Your task to perform on an android device: change the clock display to digital Image 0: 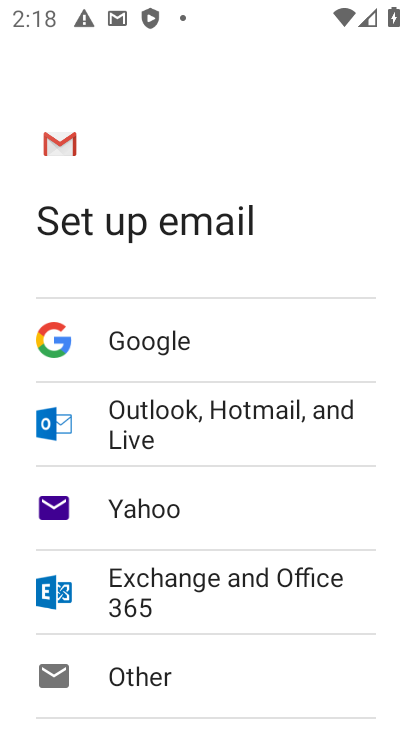
Step 0: press home button
Your task to perform on an android device: change the clock display to digital Image 1: 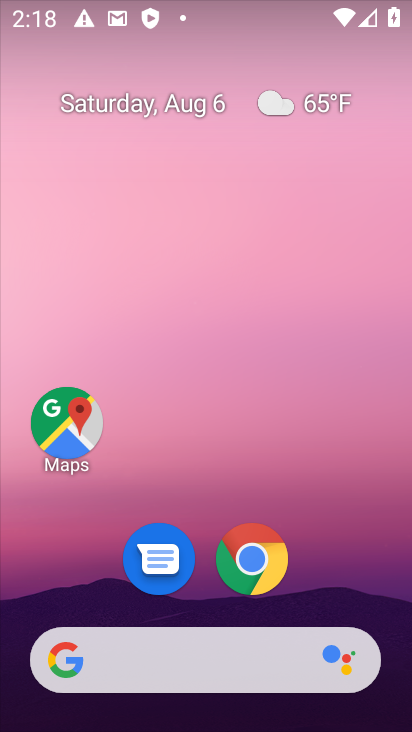
Step 1: drag from (214, 505) to (186, 140)
Your task to perform on an android device: change the clock display to digital Image 2: 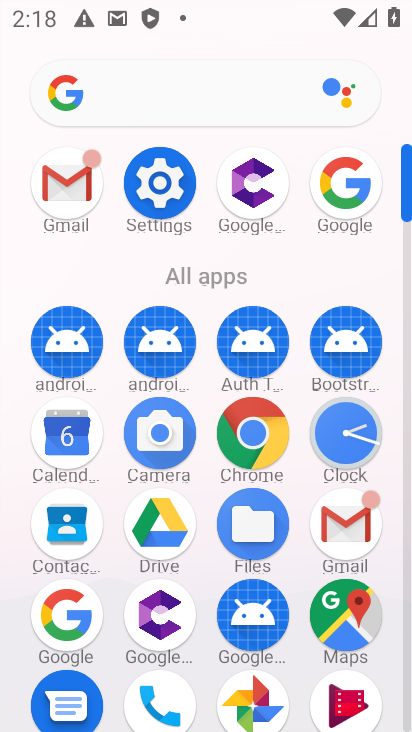
Step 2: drag from (205, 501) to (206, 222)
Your task to perform on an android device: change the clock display to digital Image 3: 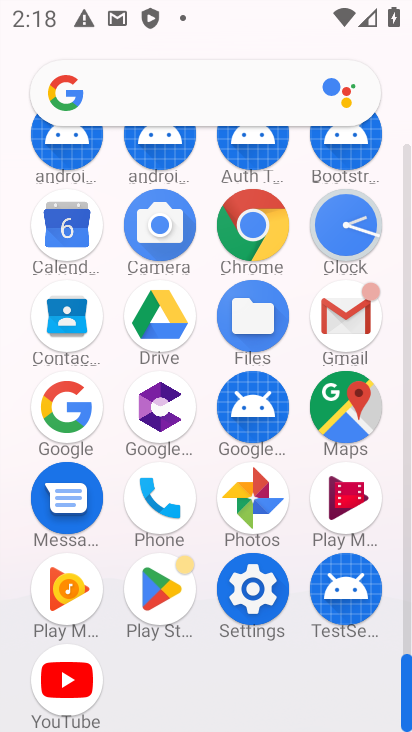
Step 3: click (350, 244)
Your task to perform on an android device: change the clock display to digital Image 4: 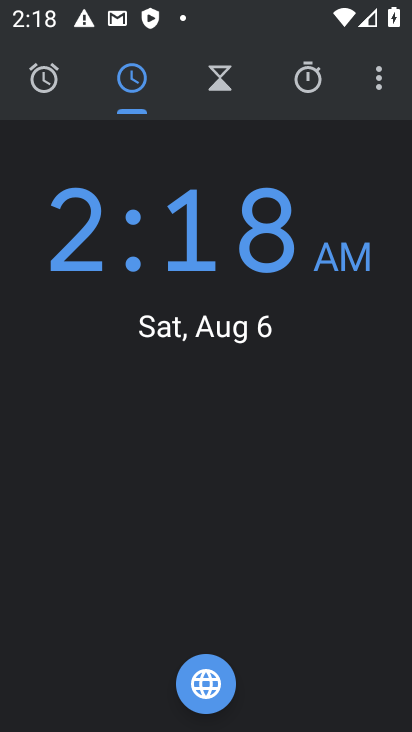
Step 4: click (373, 77)
Your task to perform on an android device: change the clock display to digital Image 5: 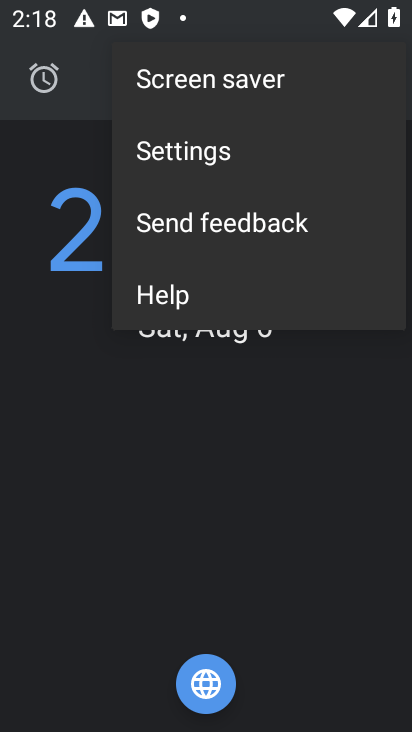
Step 5: click (183, 142)
Your task to perform on an android device: change the clock display to digital Image 6: 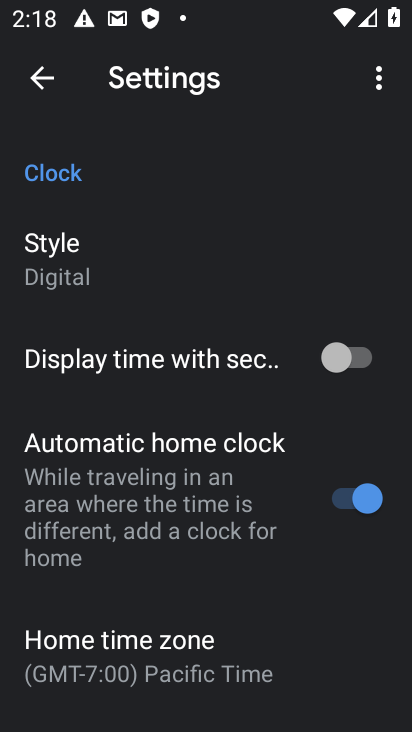
Step 6: click (151, 265)
Your task to perform on an android device: change the clock display to digital Image 7: 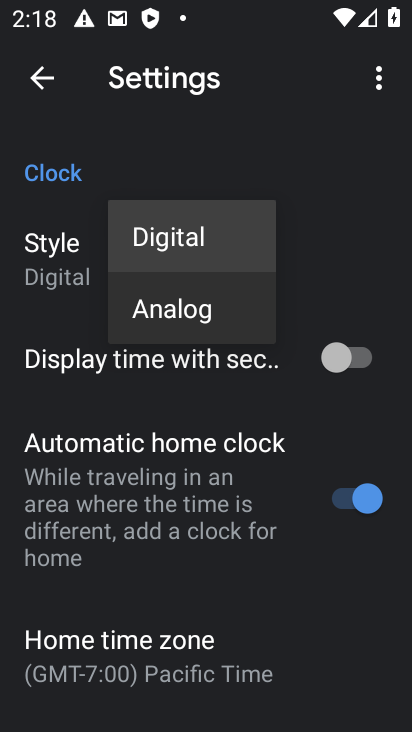
Step 7: task complete